Your task to perform on an android device: Open network settings Image 0: 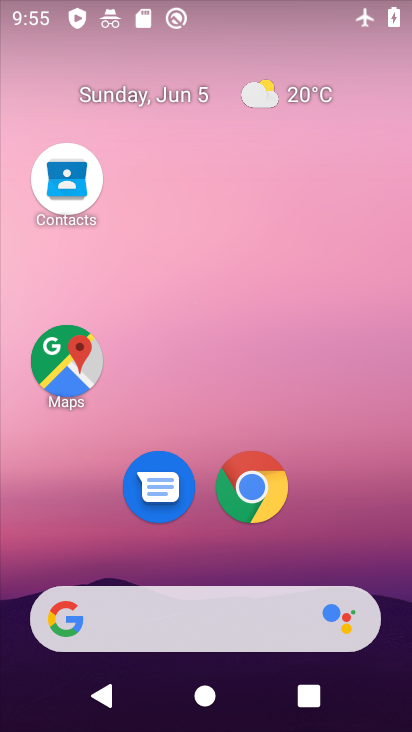
Step 0: drag from (269, 100) to (279, 66)
Your task to perform on an android device: Open network settings Image 1: 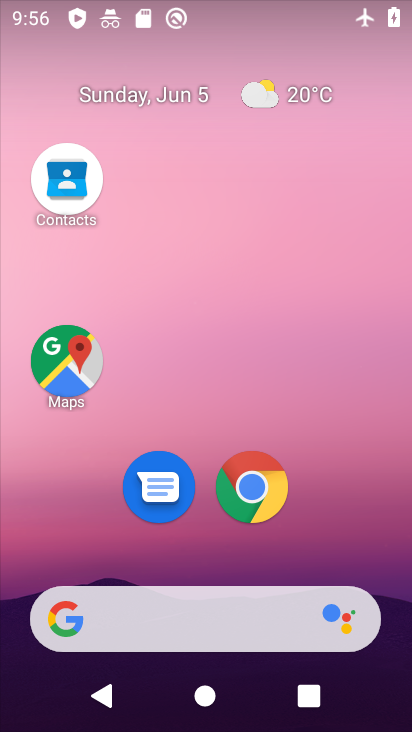
Step 1: drag from (224, 577) to (258, 247)
Your task to perform on an android device: Open network settings Image 2: 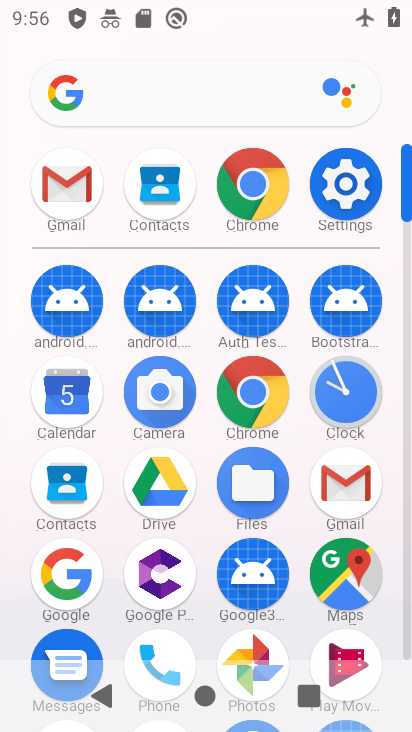
Step 2: click (349, 178)
Your task to perform on an android device: Open network settings Image 3: 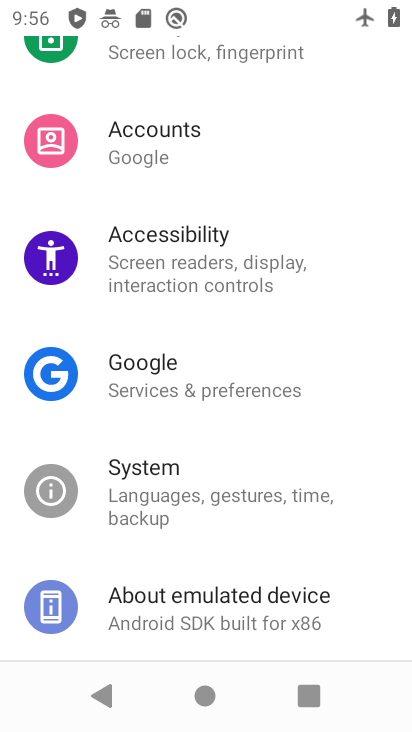
Step 3: drag from (229, 321) to (201, 644)
Your task to perform on an android device: Open network settings Image 4: 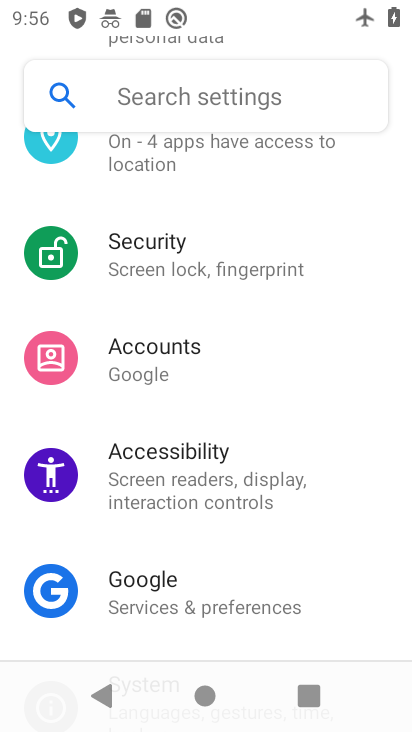
Step 4: drag from (213, 296) to (199, 630)
Your task to perform on an android device: Open network settings Image 5: 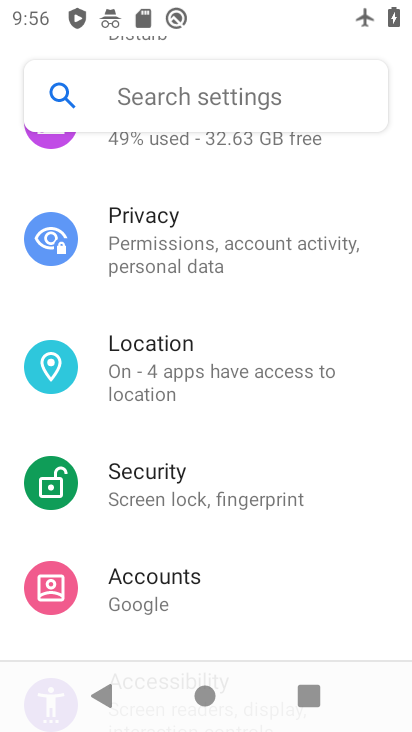
Step 5: drag from (248, 351) to (257, 710)
Your task to perform on an android device: Open network settings Image 6: 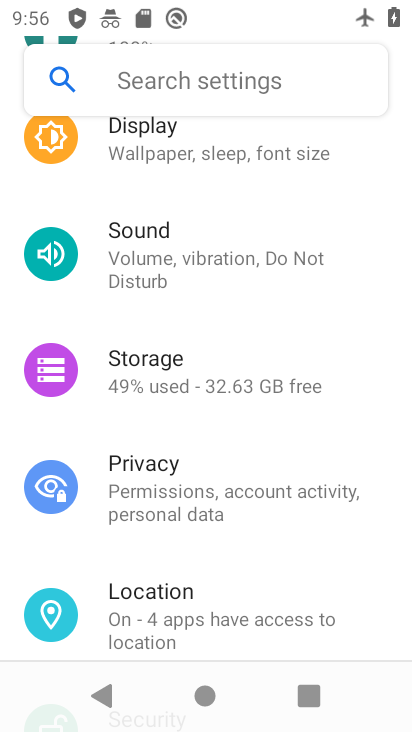
Step 6: drag from (251, 329) to (260, 702)
Your task to perform on an android device: Open network settings Image 7: 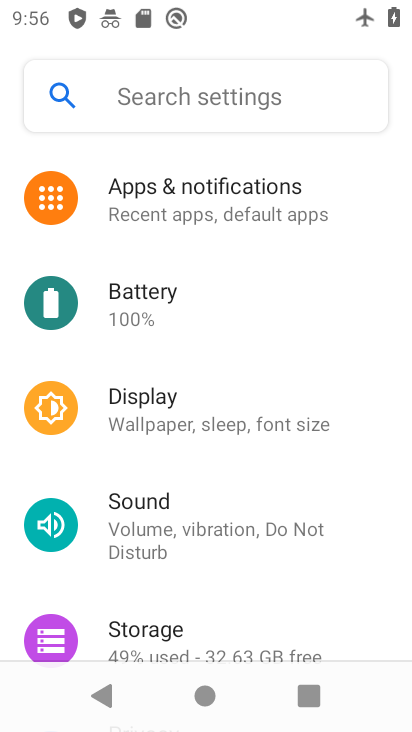
Step 7: drag from (258, 321) to (267, 652)
Your task to perform on an android device: Open network settings Image 8: 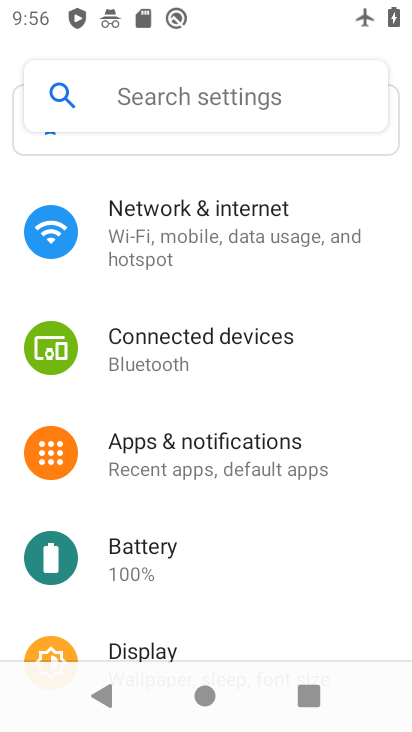
Step 8: drag from (301, 396) to (300, 725)
Your task to perform on an android device: Open network settings Image 9: 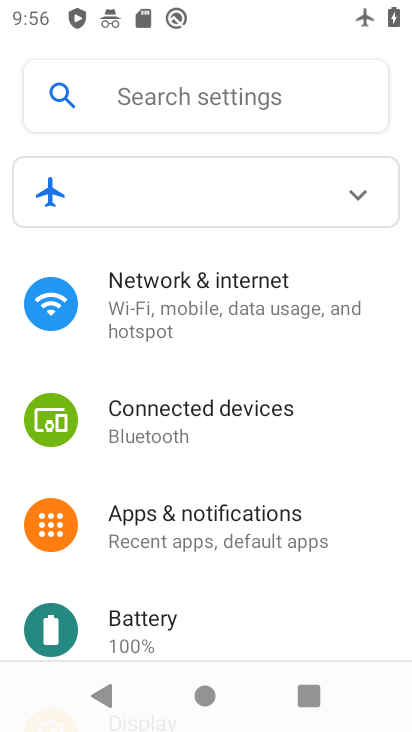
Step 9: click (296, 321)
Your task to perform on an android device: Open network settings Image 10: 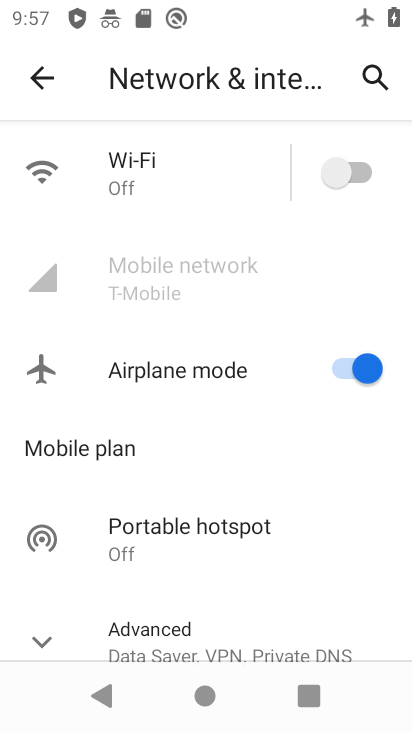
Step 10: task complete